Your task to perform on an android device: Show me popular videos on Youtube Image 0: 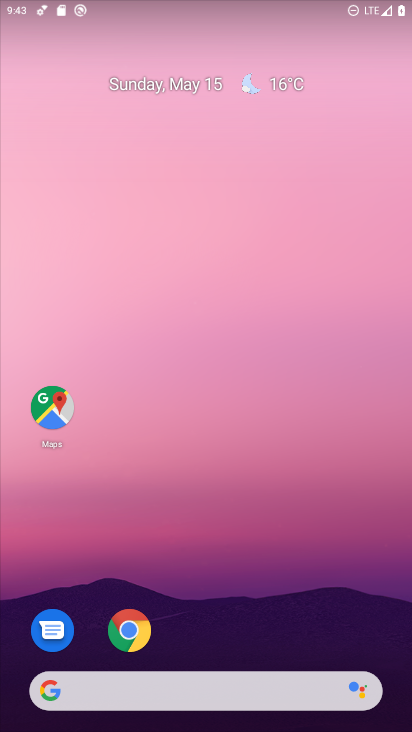
Step 0: drag from (192, 635) to (272, 54)
Your task to perform on an android device: Show me popular videos on Youtube Image 1: 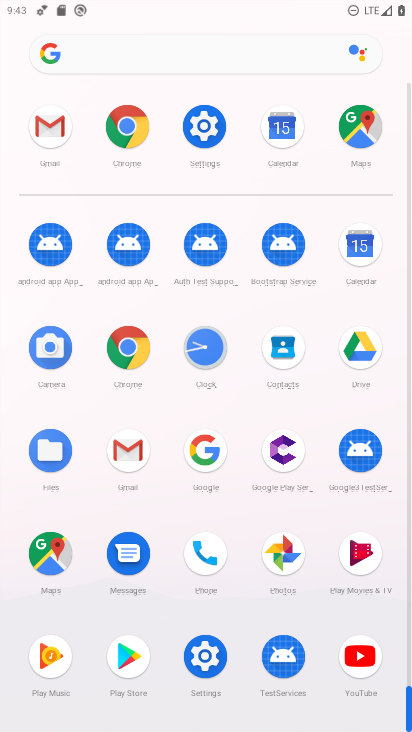
Step 1: drag from (381, 195) to (399, 225)
Your task to perform on an android device: Show me popular videos on Youtube Image 2: 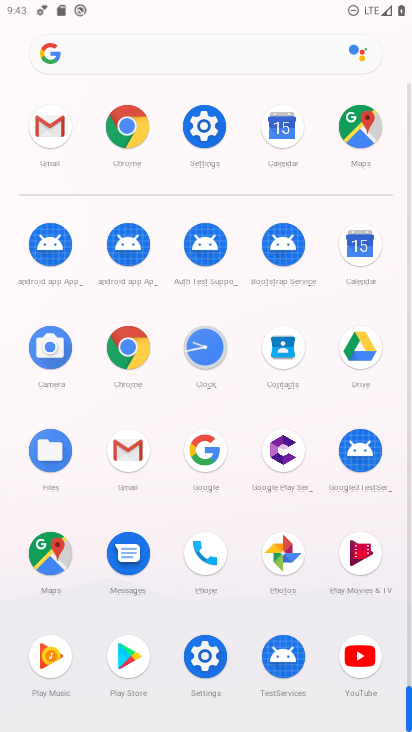
Step 2: click (374, 656)
Your task to perform on an android device: Show me popular videos on Youtube Image 3: 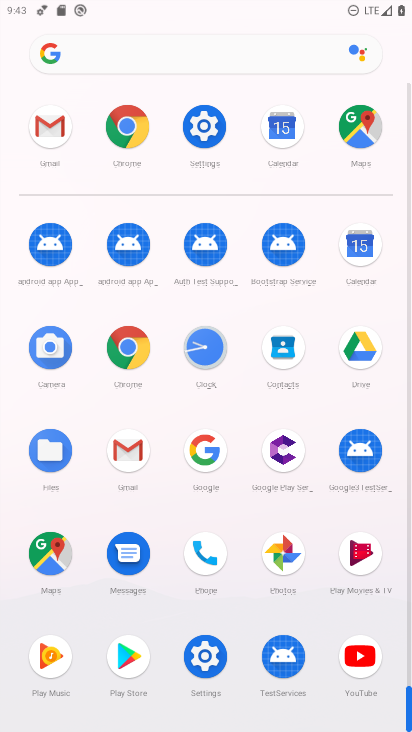
Step 3: click (372, 656)
Your task to perform on an android device: Show me popular videos on Youtube Image 4: 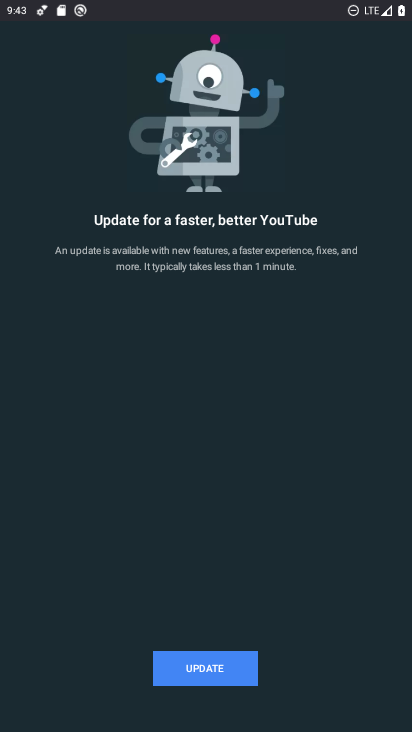
Step 4: drag from (249, 504) to (245, 329)
Your task to perform on an android device: Show me popular videos on Youtube Image 5: 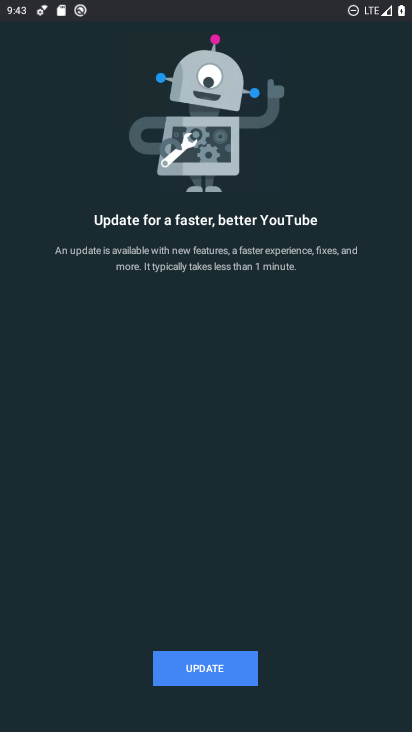
Step 5: click (214, 661)
Your task to perform on an android device: Show me popular videos on Youtube Image 6: 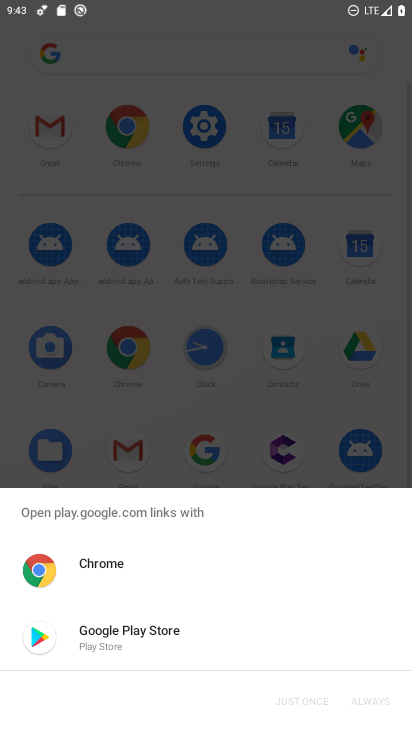
Step 6: click (119, 640)
Your task to perform on an android device: Show me popular videos on Youtube Image 7: 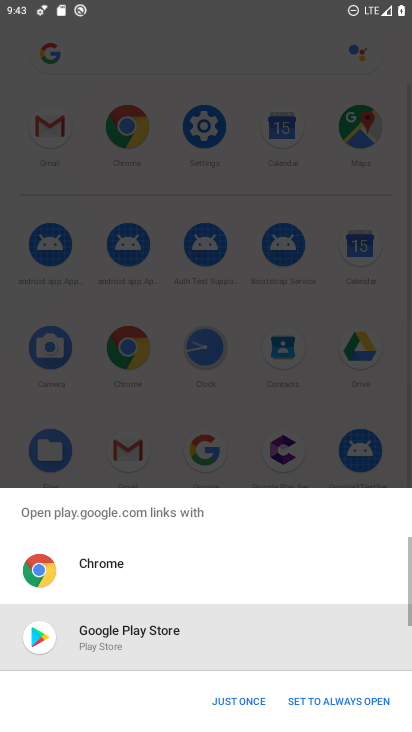
Step 7: click (231, 706)
Your task to perform on an android device: Show me popular videos on Youtube Image 8: 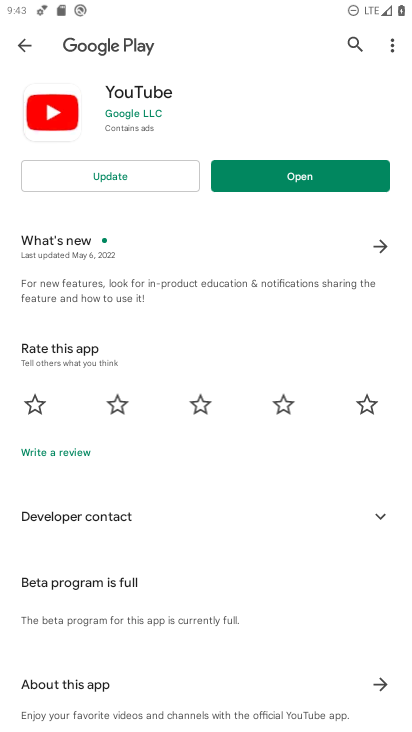
Step 8: click (128, 186)
Your task to perform on an android device: Show me popular videos on Youtube Image 9: 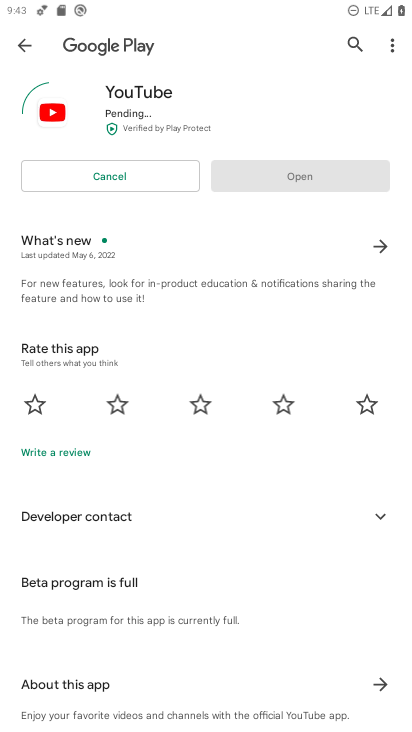
Step 9: task complete